Your task to perform on an android device: Open the stopwatch Image 0: 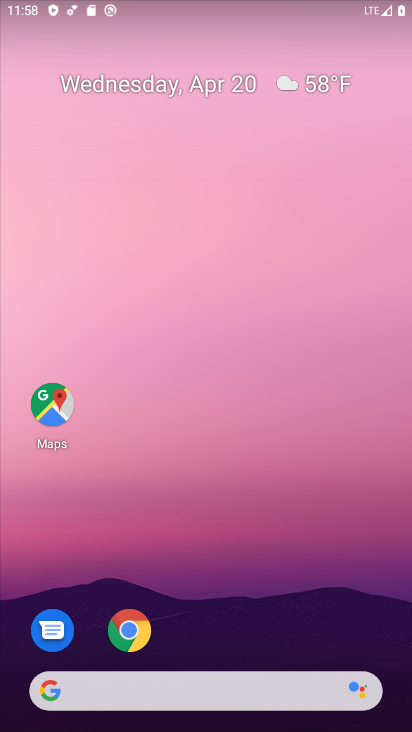
Step 0: drag from (161, 694) to (287, 151)
Your task to perform on an android device: Open the stopwatch Image 1: 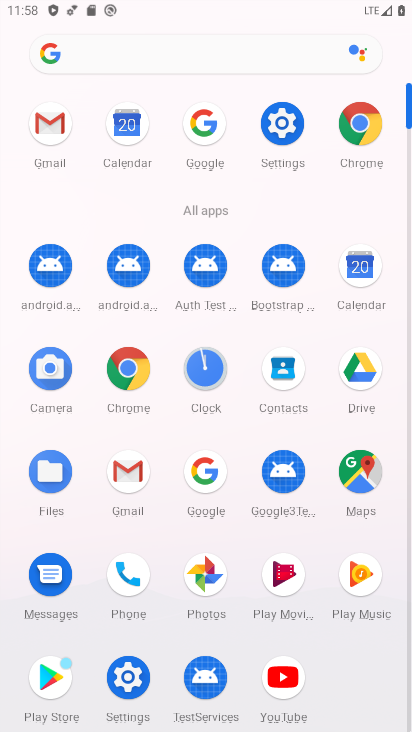
Step 1: click (206, 370)
Your task to perform on an android device: Open the stopwatch Image 2: 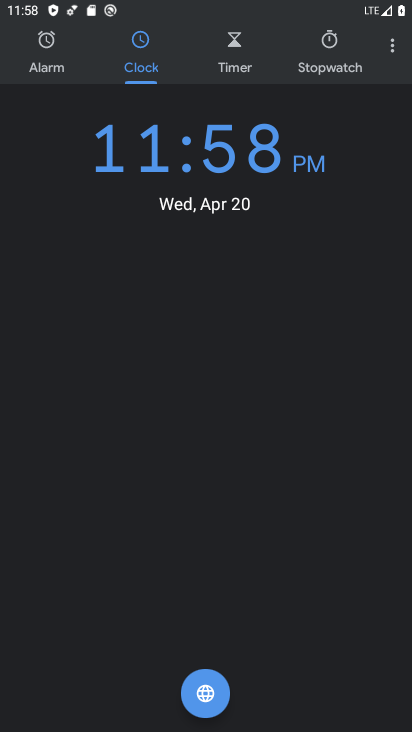
Step 2: click (395, 44)
Your task to perform on an android device: Open the stopwatch Image 3: 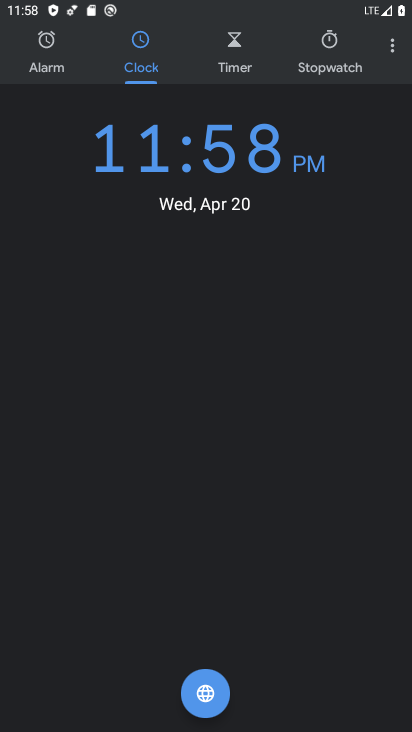
Step 3: click (394, 50)
Your task to perform on an android device: Open the stopwatch Image 4: 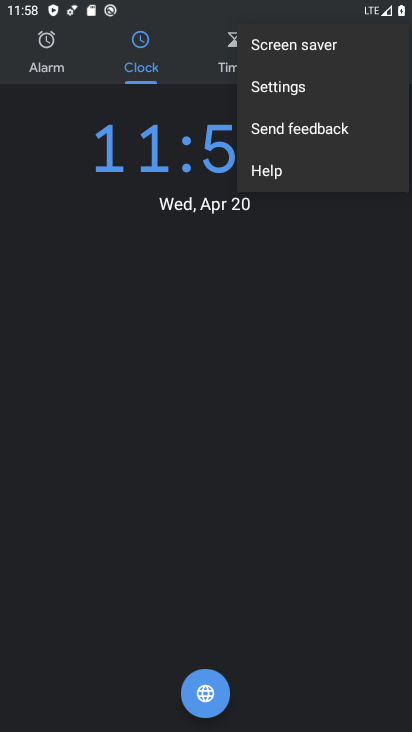
Step 4: click (90, 308)
Your task to perform on an android device: Open the stopwatch Image 5: 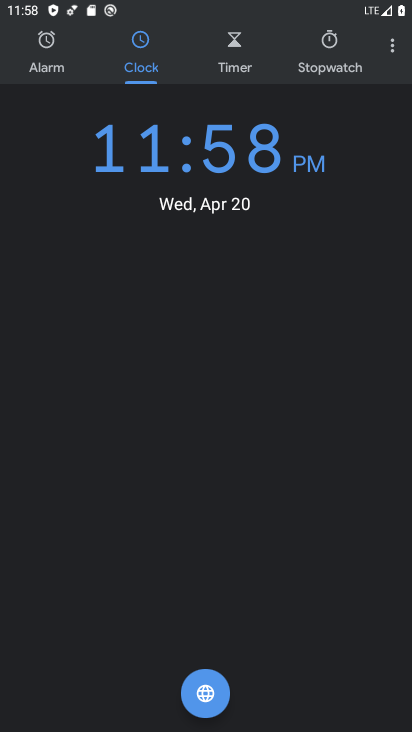
Step 5: click (338, 64)
Your task to perform on an android device: Open the stopwatch Image 6: 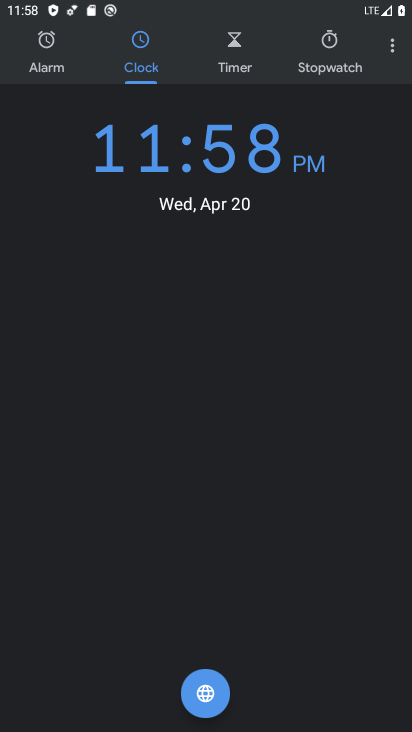
Step 6: click (330, 44)
Your task to perform on an android device: Open the stopwatch Image 7: 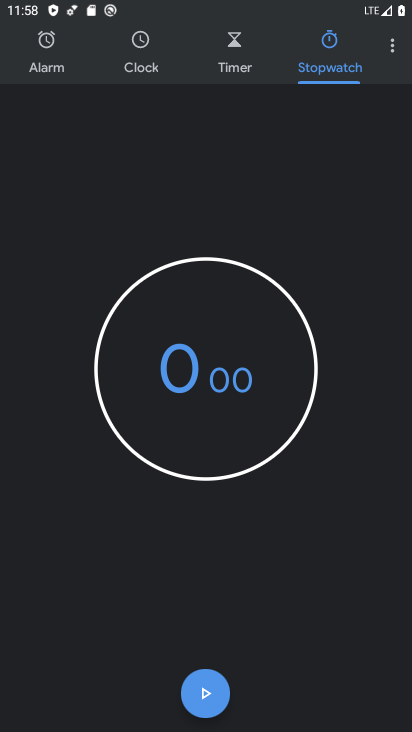
Step 7: task complete